Your task to perform on an android device: all mails in gmail Image 0: 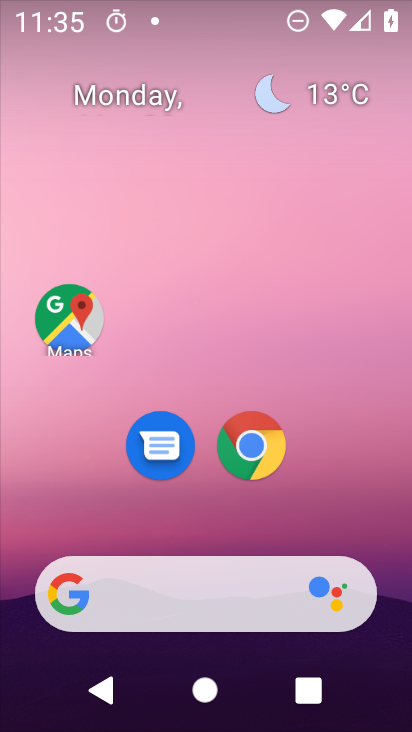
Step 0: drag from (193, 537) to (283, 72)
Your task to perform on an android device: all mails in gmail Image 1: 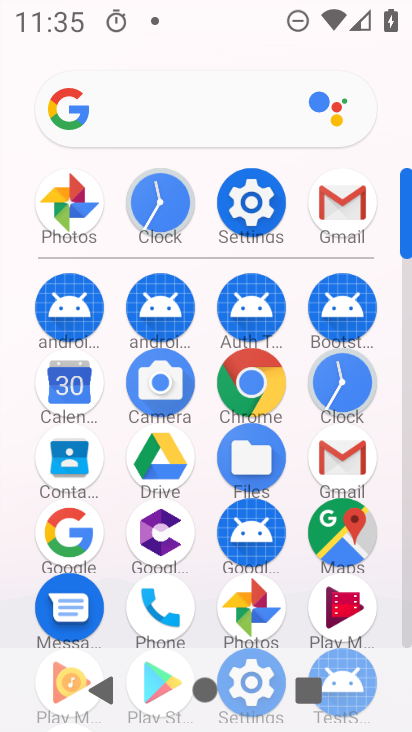
Step 1: click (342, 194)
Your task to perform on an android device: all mails in gmail Image 2: 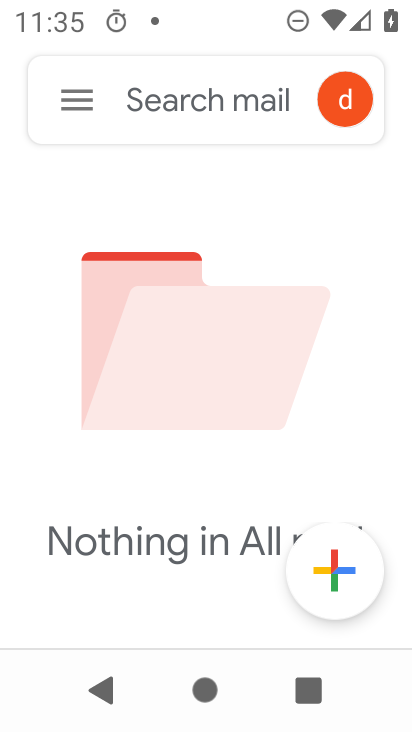
Step 2: task complete